Your task to perform on an android device: turn on data saver in the chrome app Image 0: 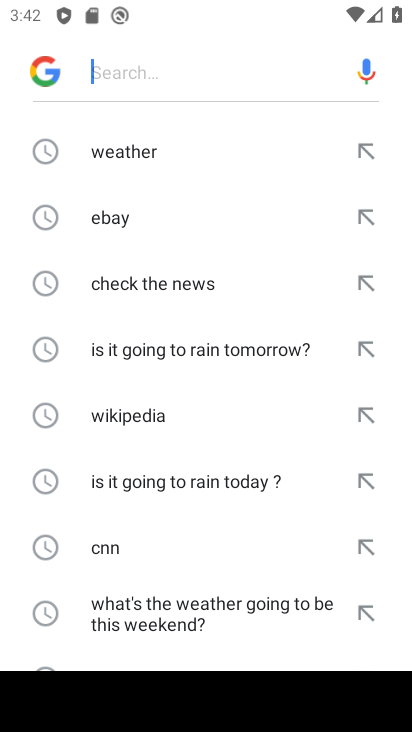
Step 0: press home button
Your task to perform on an android device: turn on data saver in the chrome app Image 1: 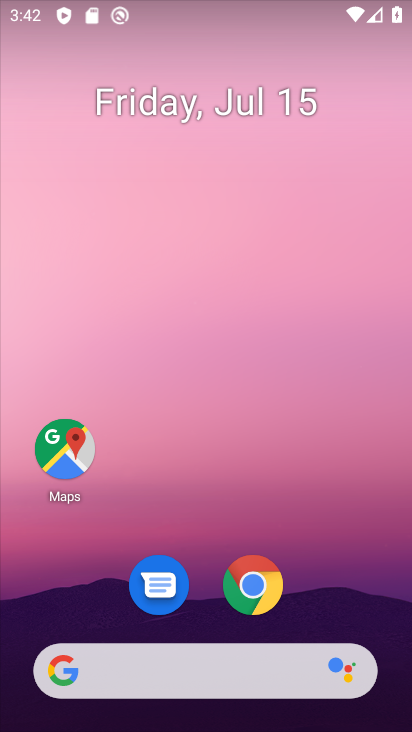
Step 1: click (251, 578)
Your task to perform on an android device: turn on data saver in the chrome app Image 2: 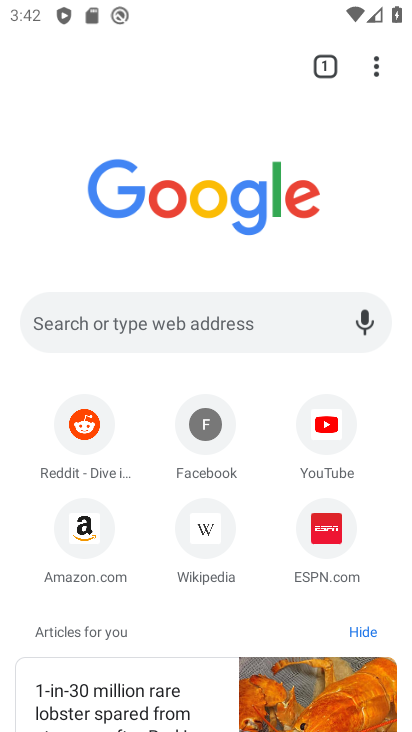
Step 2: click (377, 73)
Your task to perform on an android device: turn on data saver in the chrome app Image 3: 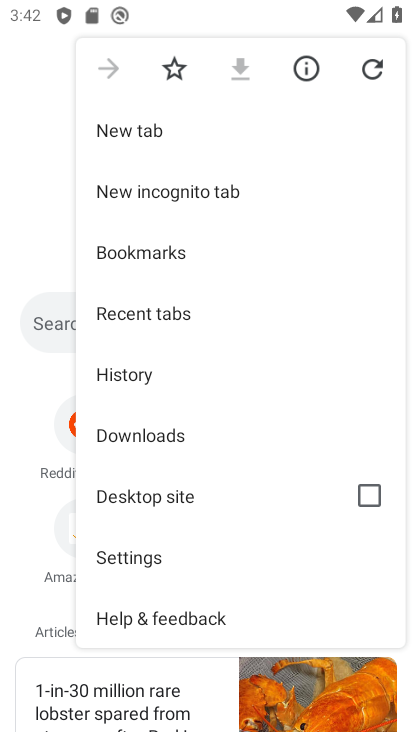
Step 3: click (147, 553)
Your task to perform on an android device: turn on data saver in the chrome app Image 4: 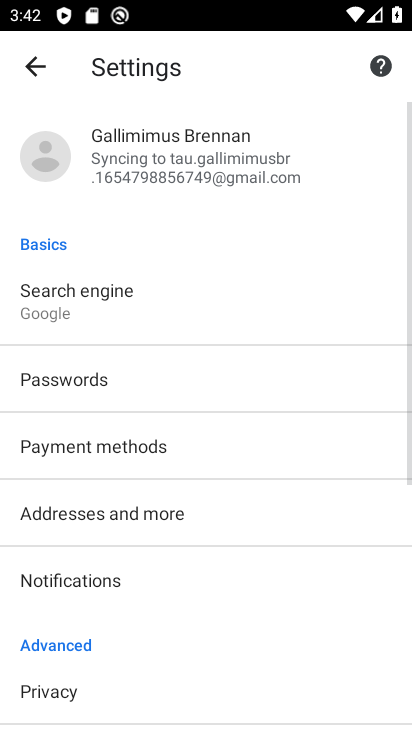
Step 4: drag from (173, 659) to (199, 280)
Your task to perform on an android device: turn on data saver in the chrome app Image 5: 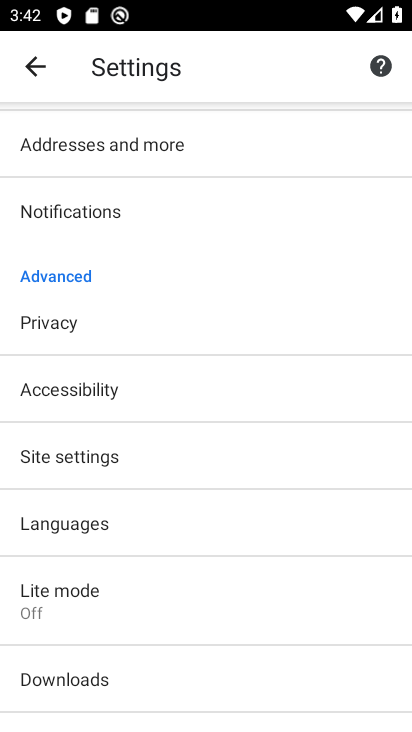
Step 5: click (128, 609)
Your task to perform on an android device: turn on data saver in the chrome app Image 6: 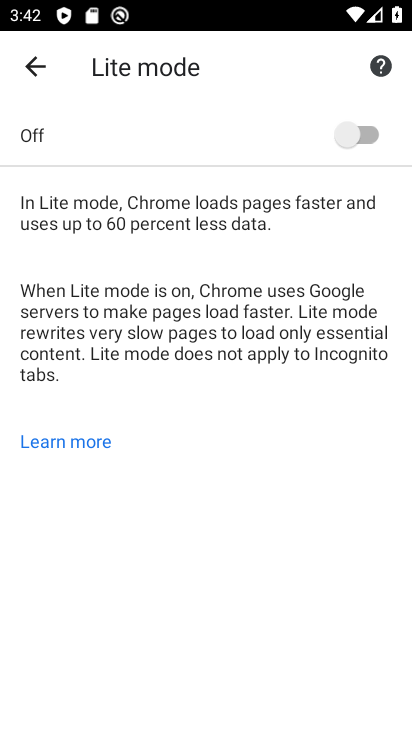
Step 6: click (358, 136)
Your task to perform on an android device: turn on data saver in the chrome app Image 7: 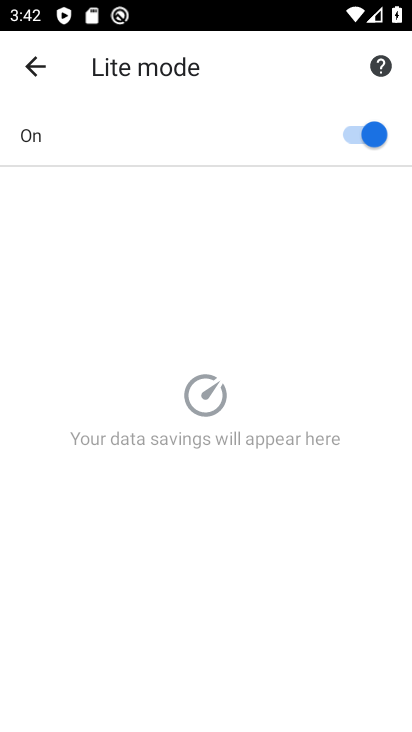
Step 7: task complete